Your task to perform on an android device: Go to accessibility settings Image 0: 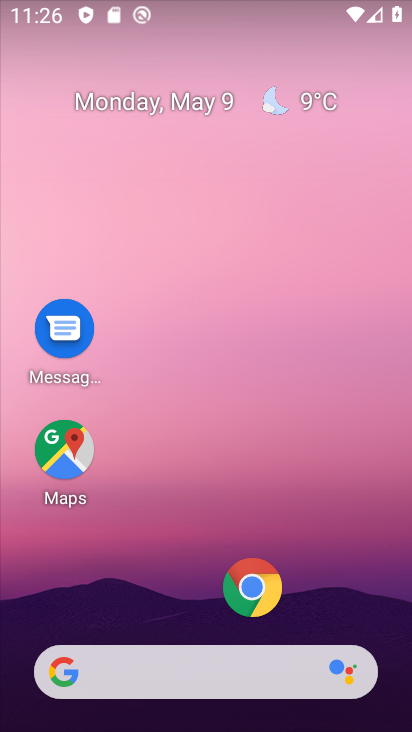
Step 0: drag from (144, 624) to (212, 281)
Your task to perform on an android device: Go to accessibility settings Image 1: 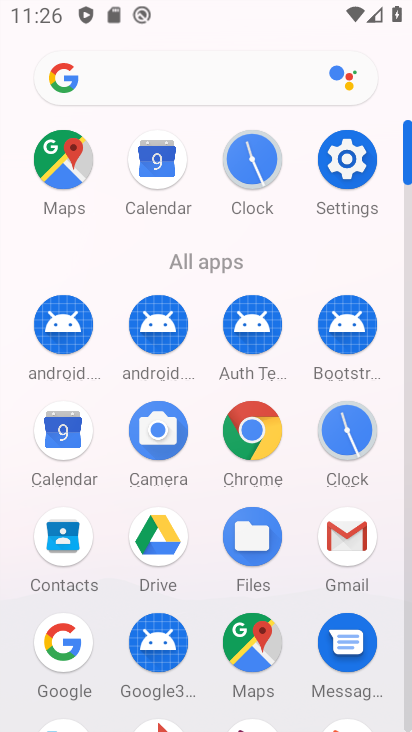
Step 1: click (354, 159)
Your task to perform on an android device: Go to accessibility settings Image 2: 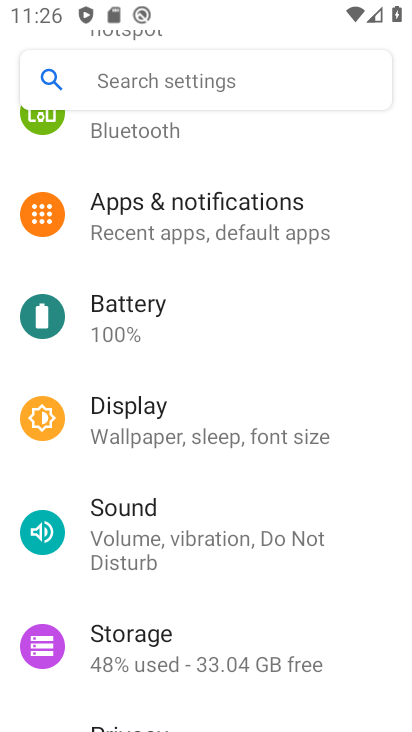
Step 2: drag from (233, 645) to (281, 289)
Your task to perform on an android device: Go to accessibility settings Image 3: 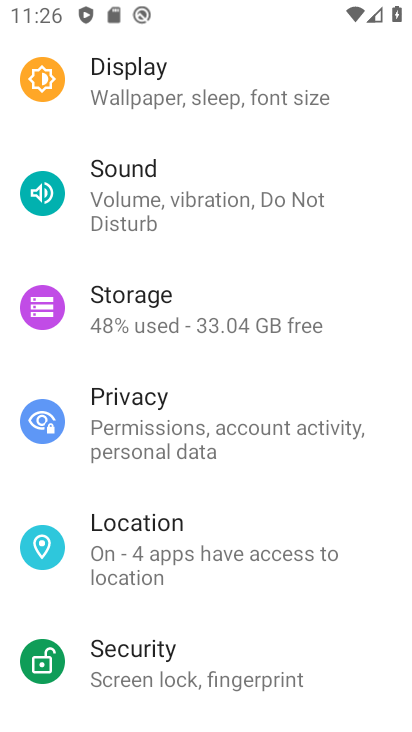
Step 3: drag from (205, 631) to (265, 298)
Your task to perform on an android device: Go to accessibility settings Image 4: 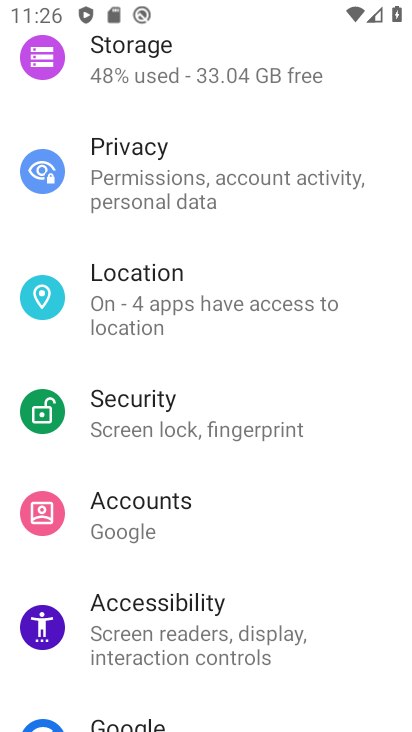
Step 4: click (158, 610)
Your task to perform on an android device: Go to accessibility settings Image 5: 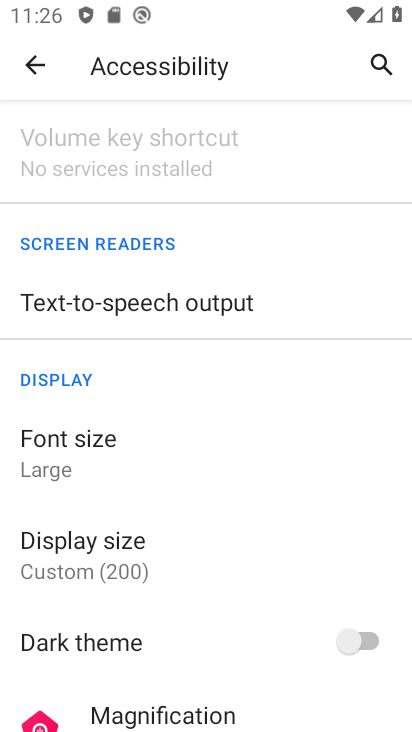
Step 5: task complete